Your task to perform on an android device: create a new album in the google photos Image 0: 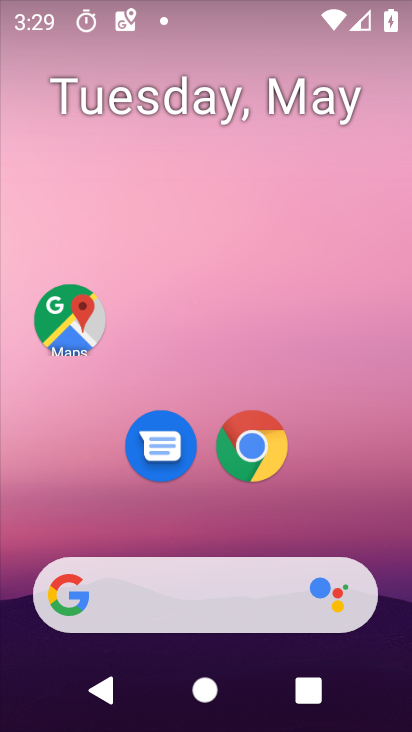
Step 0: drag from (224, 724) to (224, 155)
Your task to perform on an android device: create a new album in the google photos Image 1: 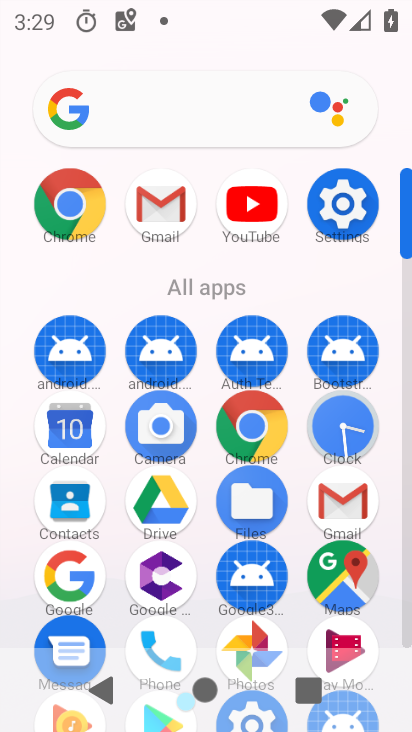
Step 1: drag from (201, 625) to (207, 293)
Your task to perform on an android device: create a new album in the google photos Image 2: 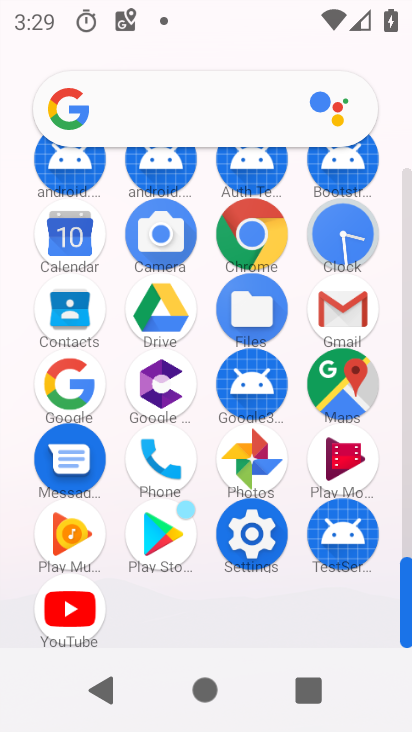
Step 2: click (253, 463)
Your task to perform on an android device: create a new album in the google photos Image 3: 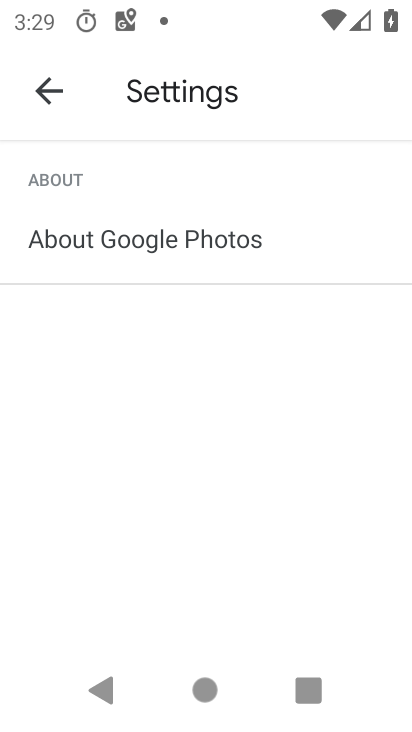
Step 3: click (45, 83)
Your task to perform on an android device: create a new album in the google photos Image 4: 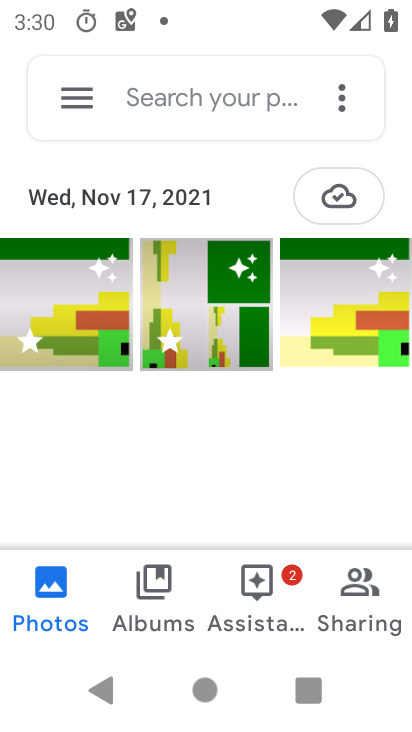
Step 4: click (342, 101)
Your task to perform on an android device: create a new album in the google photos Image 5: 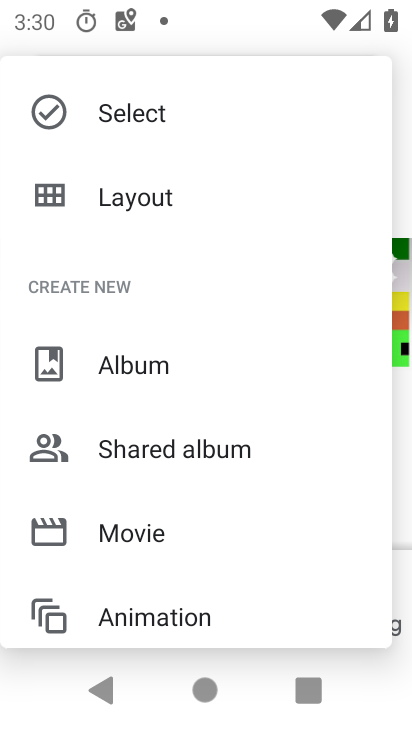
Step 5: click (120, 362)
Your task to perform on an android device: create a new album in the google photos Image 6: 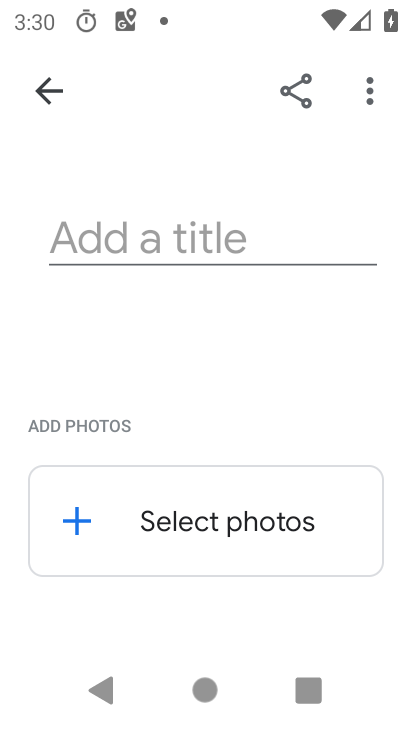
Step 6: click (172, 236)
Your task to perform on an android device: create a new album in the google photos Image 7: 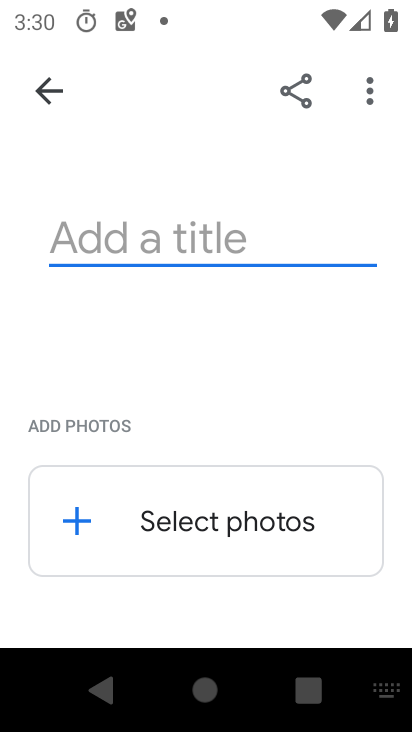
Step 7: type "vaikhya"
Your task to perform on an android device: create a new album in the google photos Image 8: 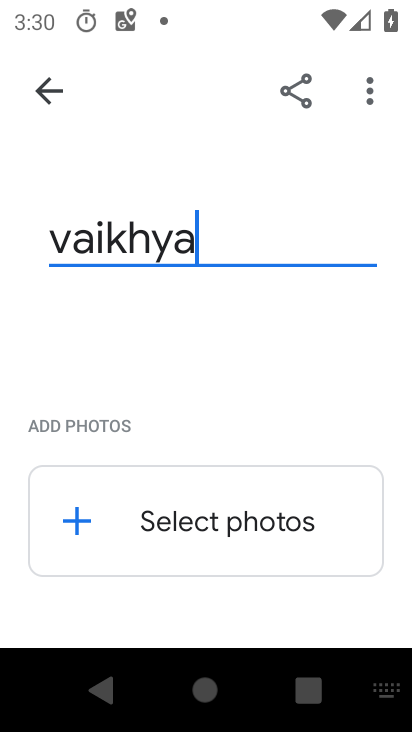
Step 8: click (66, 520)
Your task to perform on an android device: create a new album in the google photos Image 9: 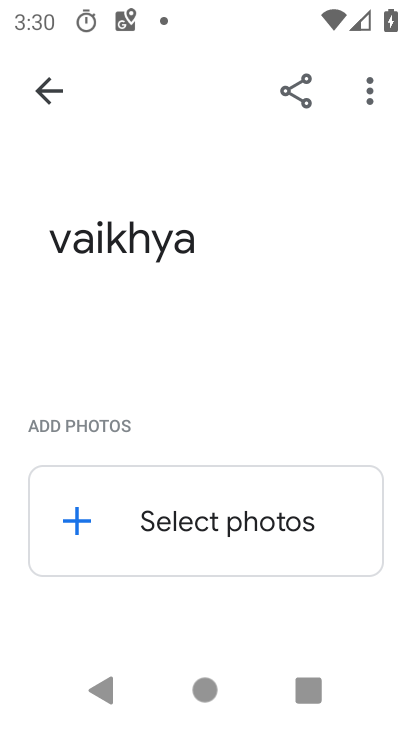
Step 9: click (76, 514)
Your task to perform on an android device: create a new album in the google photos Image 10: 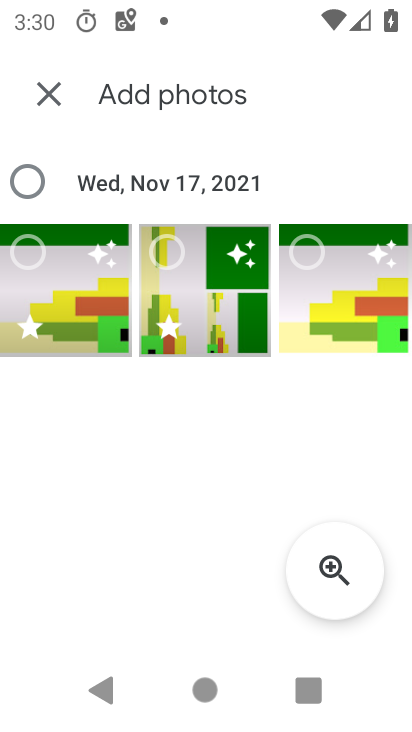
Step 10: click (164, 253)
Your task to perform on an android device: create a new album in the google photos Image 11: 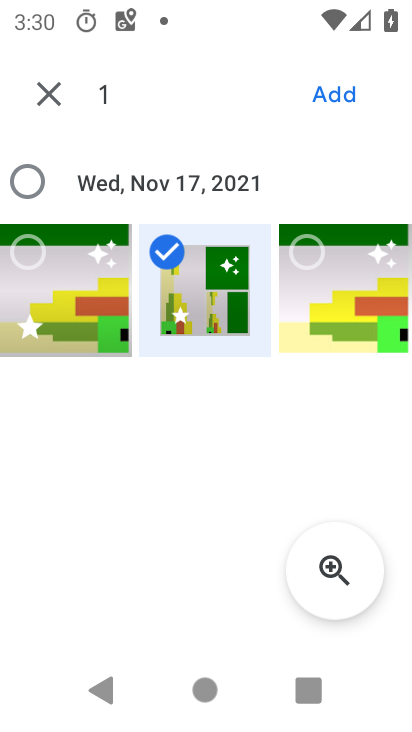
Step 11: click (296, 255)
Your task to perform on an android device: create a new album in the google photos Image 12: 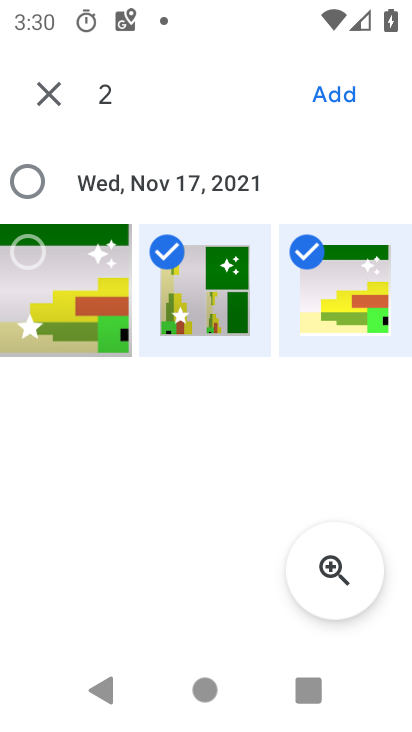
Step 12: click (321, 93)
Your task to perform on an android device: create a new album in the google photos Image 13: 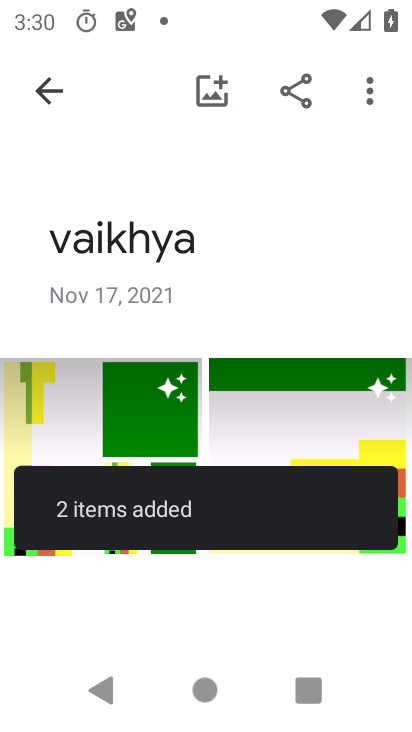
Step 13: task complete